Your task to perform on an android device: Search for sushi restaurants on Maps Image 0: 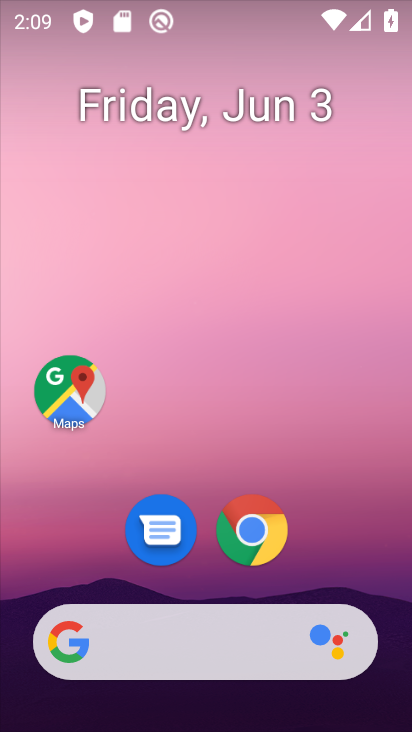
Step 0: click (67, 398)
Your task to perform on an android device: Search for sushi restaurants on Maps Image 1: 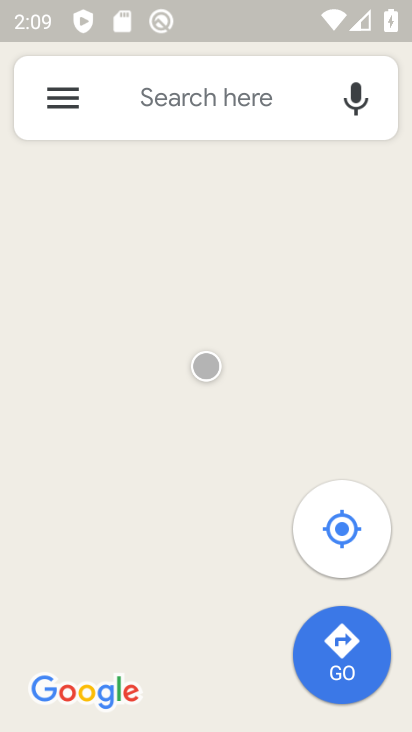
Step 1: click (176, 101)
Your task to perform on an android device: Search for sushi restaurants on Maps Image 2: 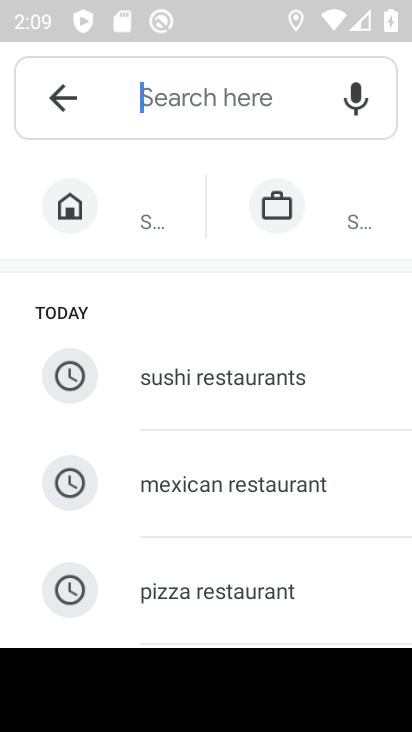
Step 2: type "sushi"
Your task to perform on an android device: Search for sushi restaurants on Maps Image 3: 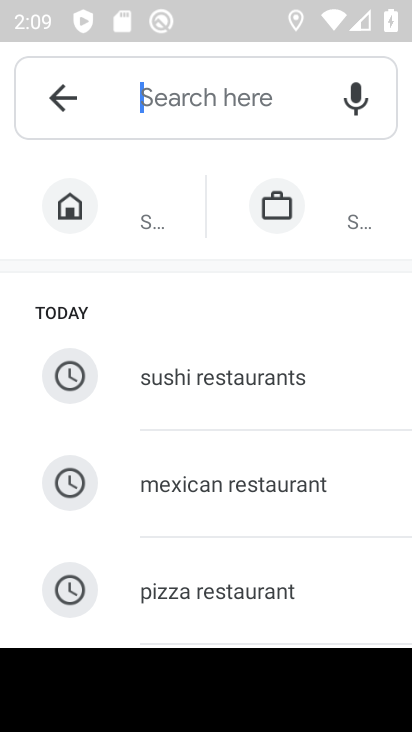
Step 3: click (222, 382)
Your task to perform on an android device: Search for sushi restaurants on Maps Image 4: 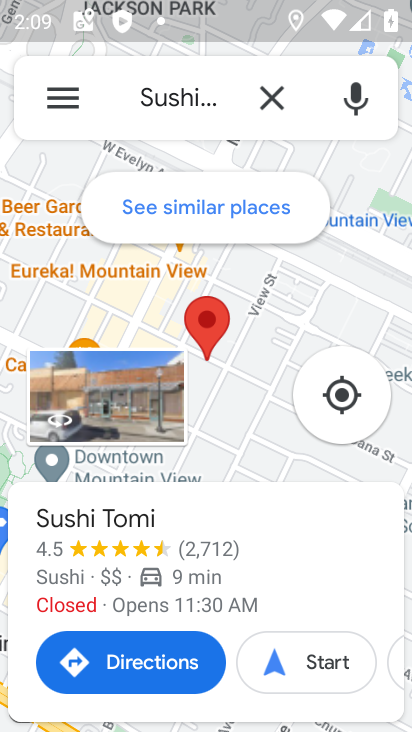
Step 4: task complete